Your task to perform on an android device: uninstall "DuckDuckGo Privacy Browser" Image 0: 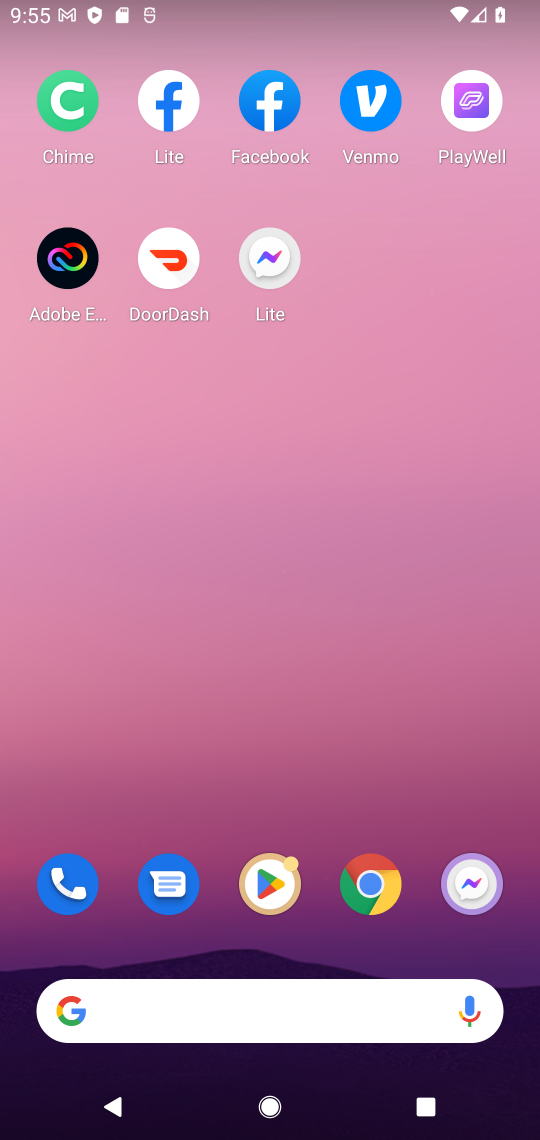
Step 0: click (355, 907)
Your task to perform on an android device: uninstall "DuckDuckGo Privacy Browser" Image 1: 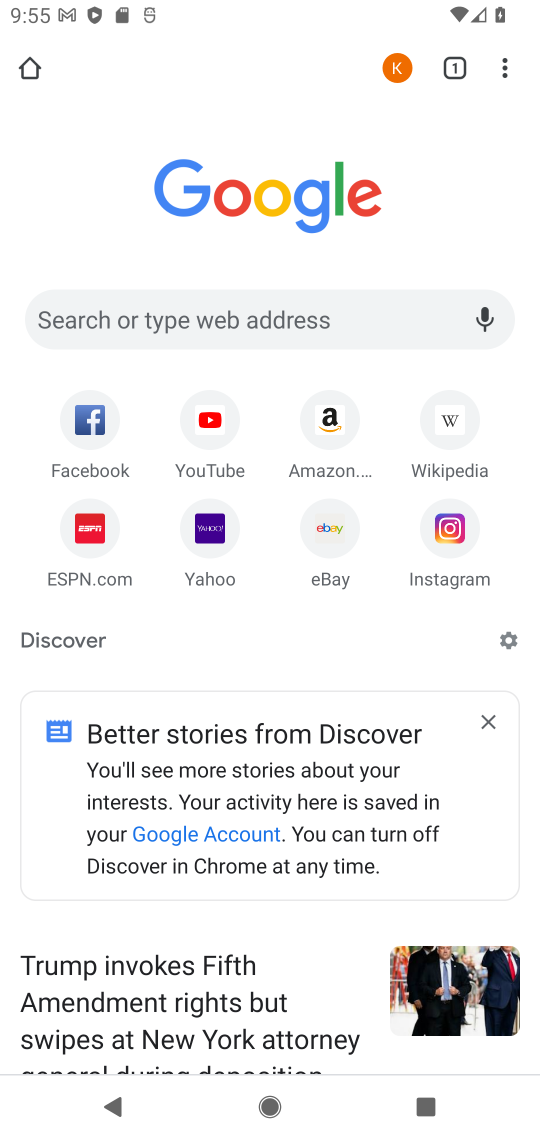
Step 1: click (314, 338)
Your task to perform on an android device: uninstall "DuckDuckGo Privacy Browser" Image 2: 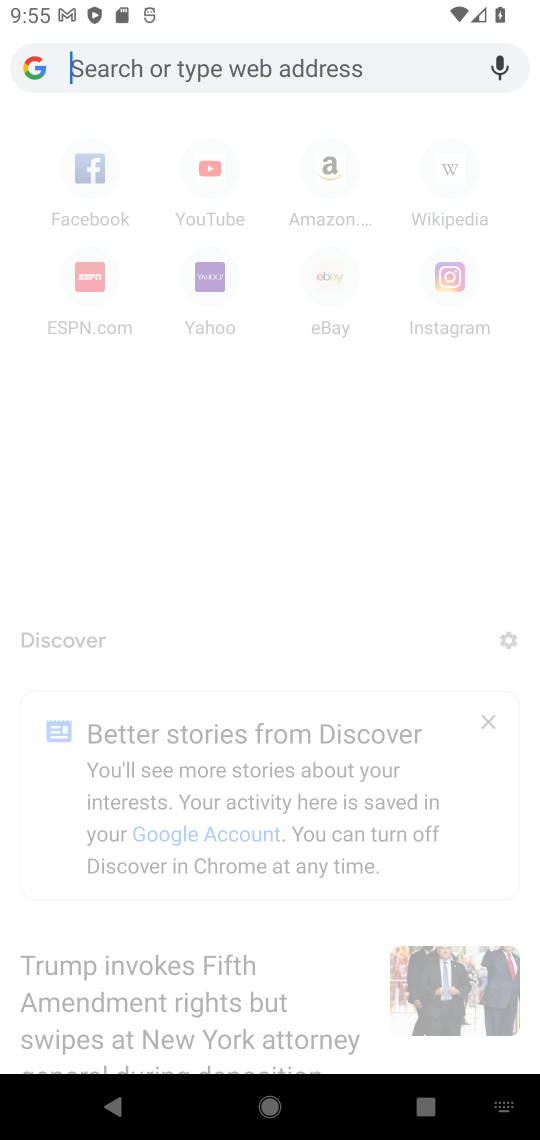
Step 2: press home button
Your task to perform on an android device: uninstall "DuckDuckGo Privacy Browser" Image 3: 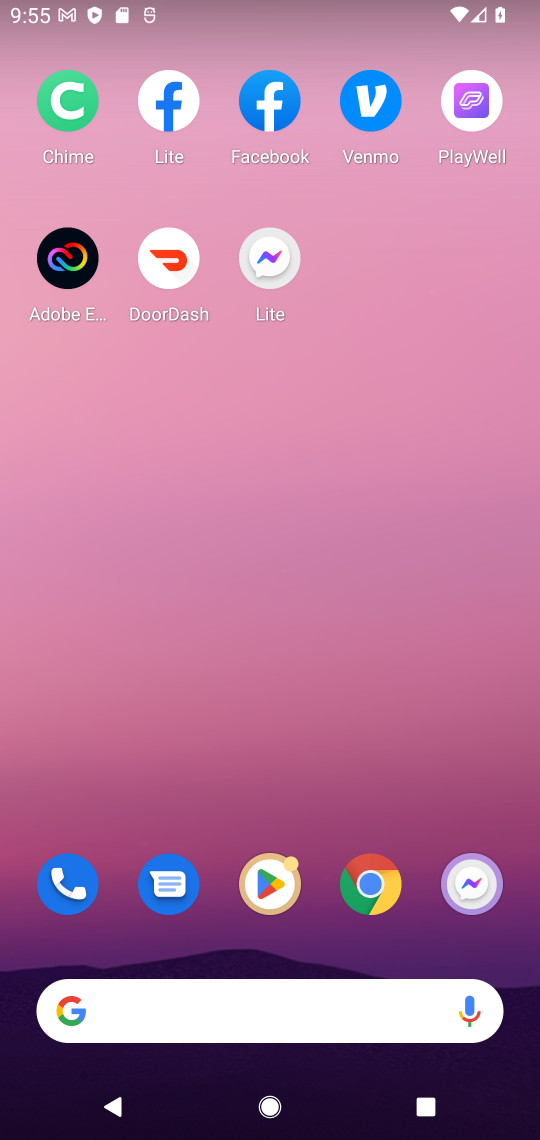
Step 3: click (246, 865)
Your task to perform on an android device: uninstall "DuckDuckGo Privacy Browser" Image 4: 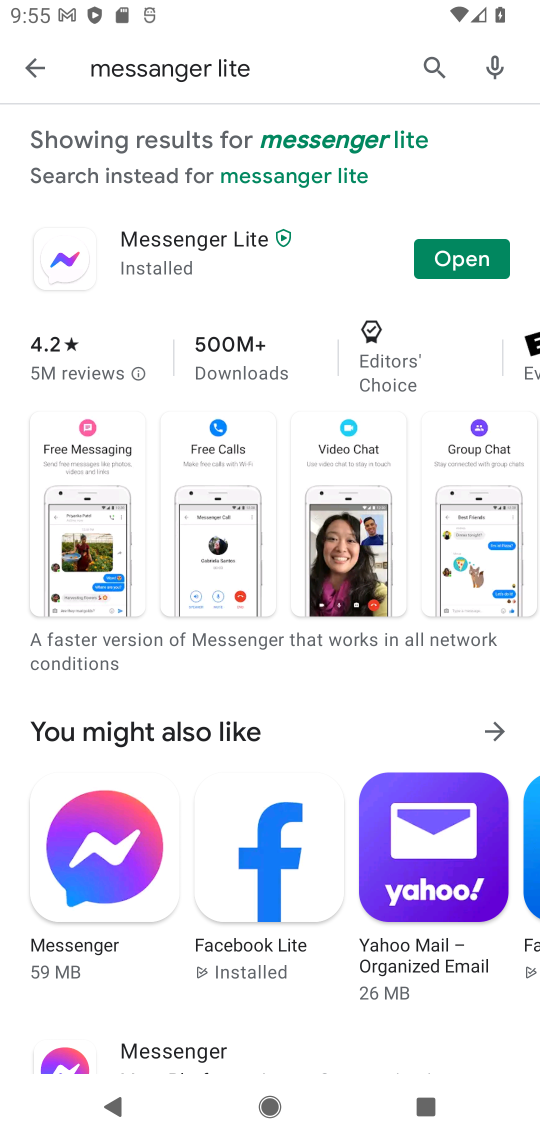
Step 4: click (419, 68)
Your task to perform on an android device: uninstall "DuckDuckGo Privacy Browser" Image 5: 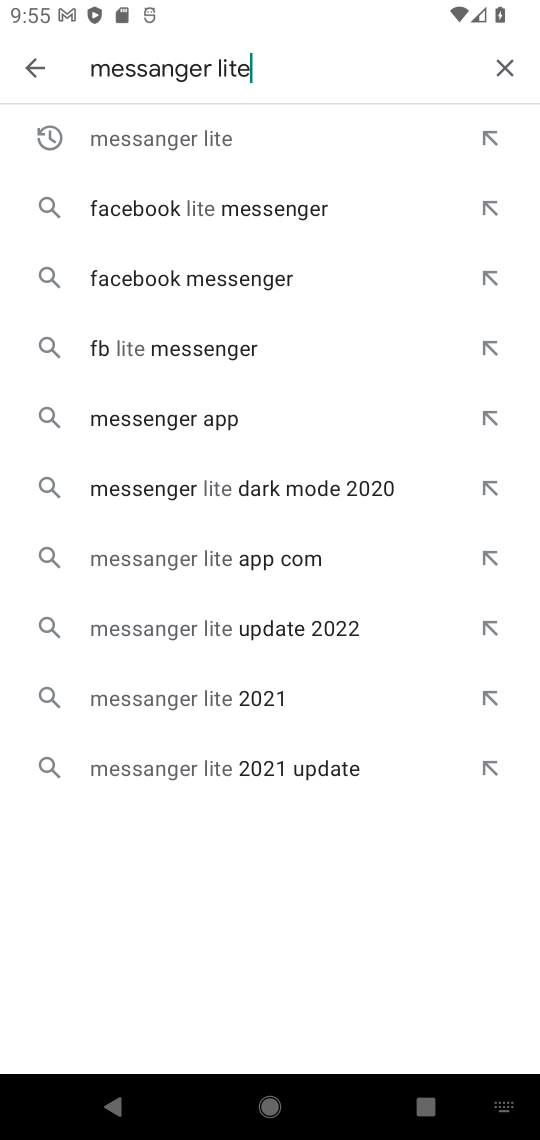
Step 5: click (507, 74)
Your task to perform on an android device: uninstall "DuckDuckGo Privacy Browser" Image 6: 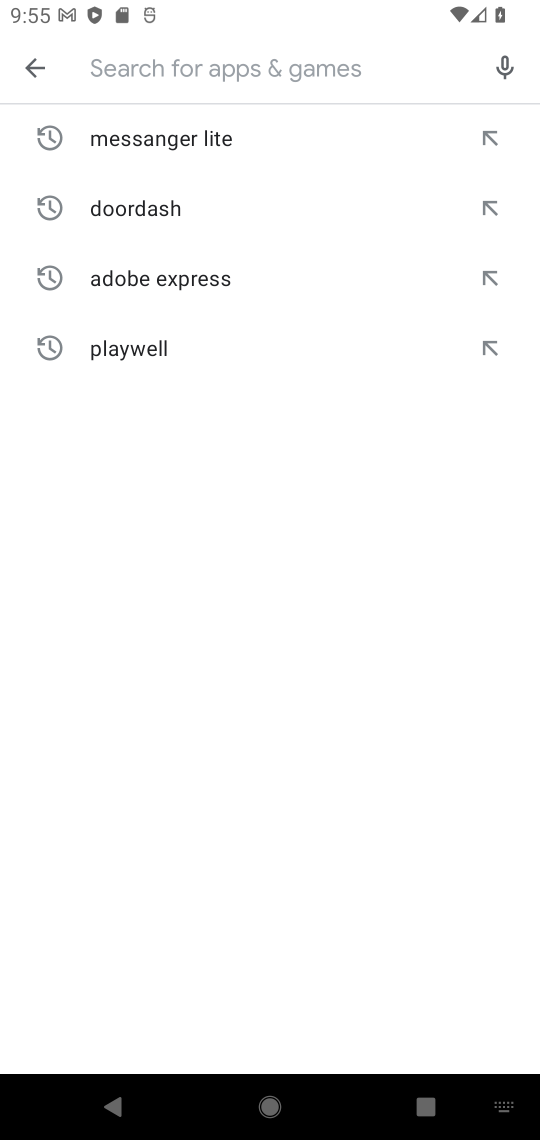
Step 6: type "duck duck go"
Your task to perform on an android device: uninstall "DuckDuckGo Privacy Browser" Image 7: 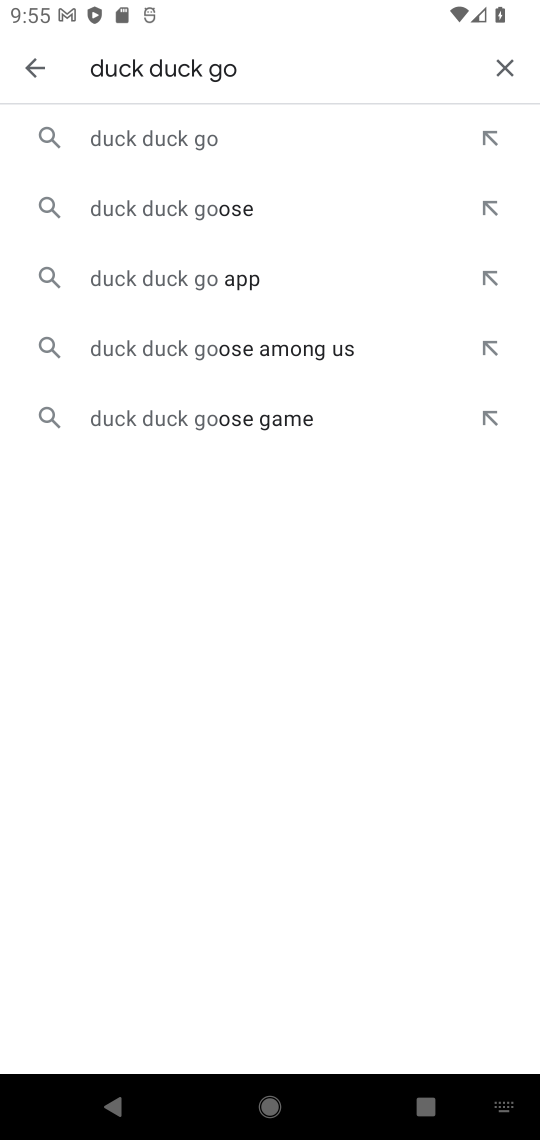
Step 7: click (207, 143)
Your task to perform on an android device: uninstall "DuckDuckGo Privacy Browser" Image 8: 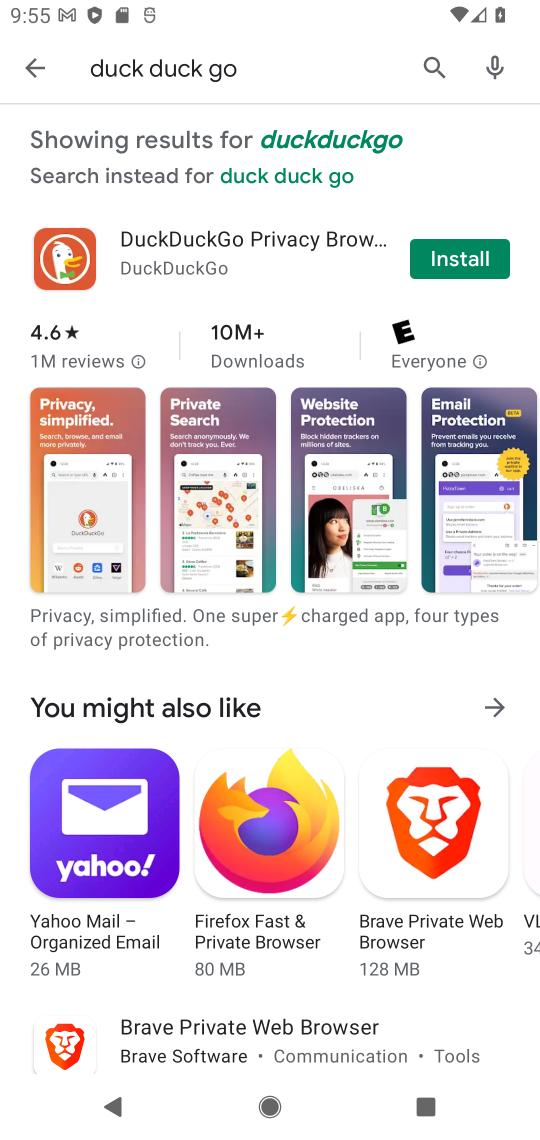
Step 8: click (430, 252)
Your task to perform on an android device: uninstall "DuckDuckGo Privacy Browser" Image 9: 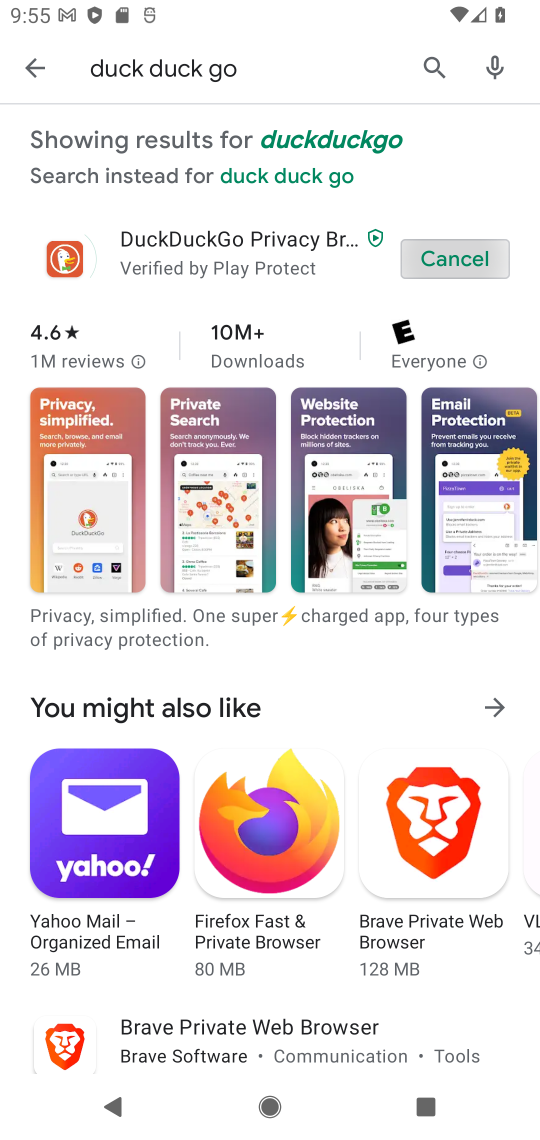
Step 9: task complete